Your task to perform on an android device: turn on location history Image 0: 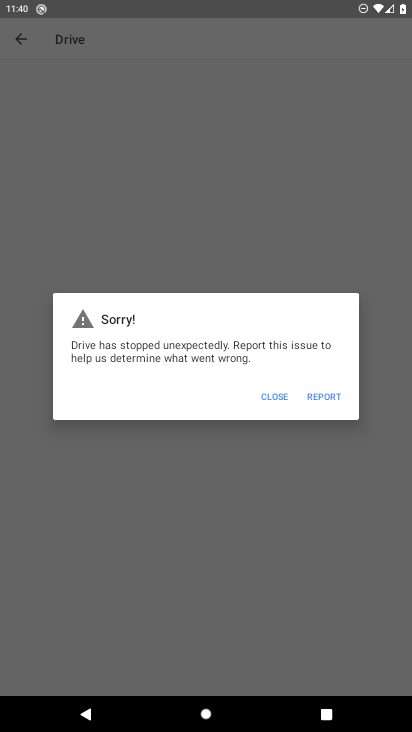
Step 0: drag from (211, 507) to (259, 289)
Your task to perform on an android device: turn on location history Image 1: 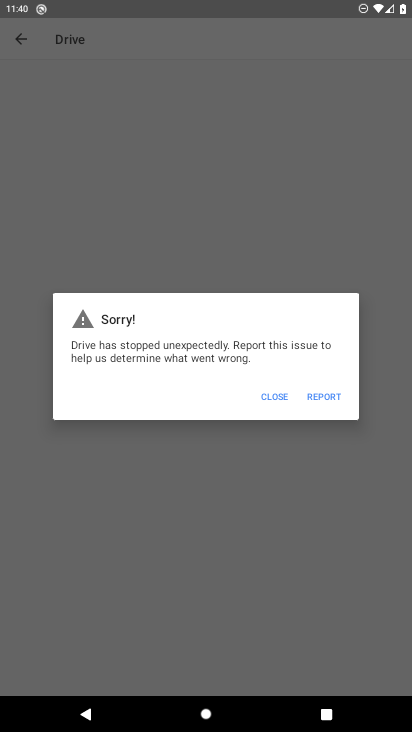
Step 1: drag from (187, 543) to (202, 245)
Your task to perform on an android device: turn on location history Image 2: 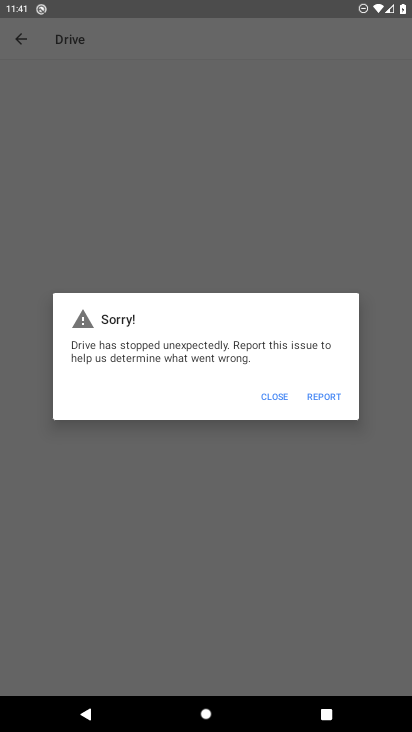
Step 2: drag from (235, 539) to (269, 253)
Your task to perform on an android device: turn on location history Image 3: 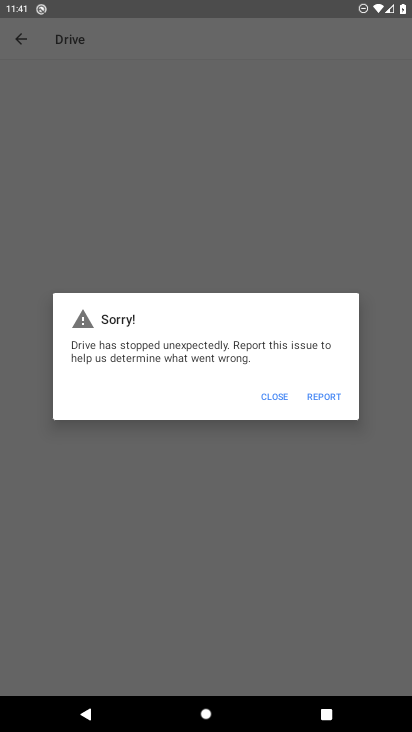
Step 3: drag from (170, 383) to (244, 131)
Your task to perform on an android device: turn on location history Image 4: 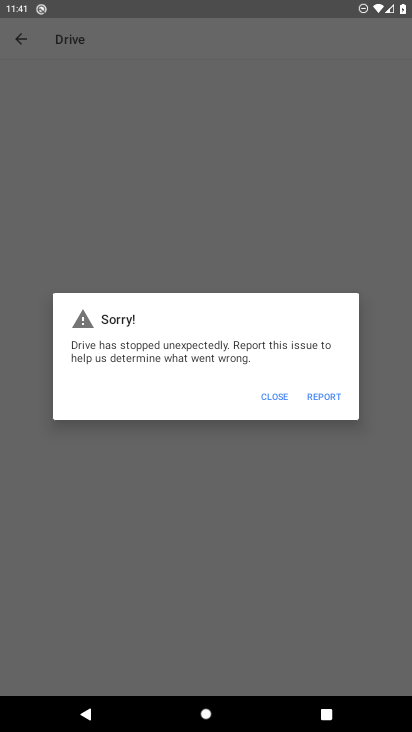
Step 4: press home button
Your task to perform on an android device: turn on location history Image 5: 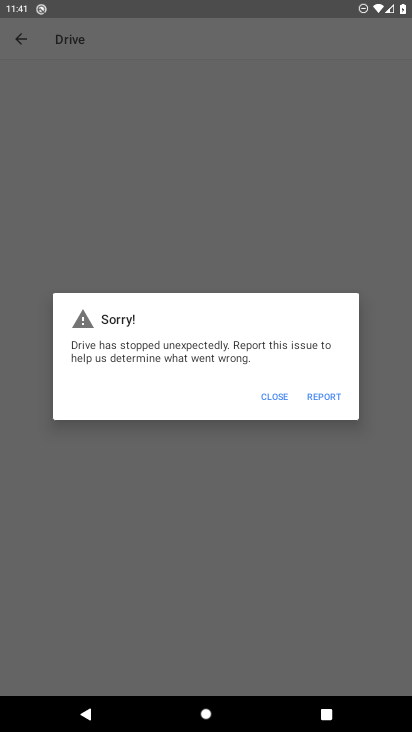
Step 5: press home button
Your task to perform on an android device: turn on location history Image 6: 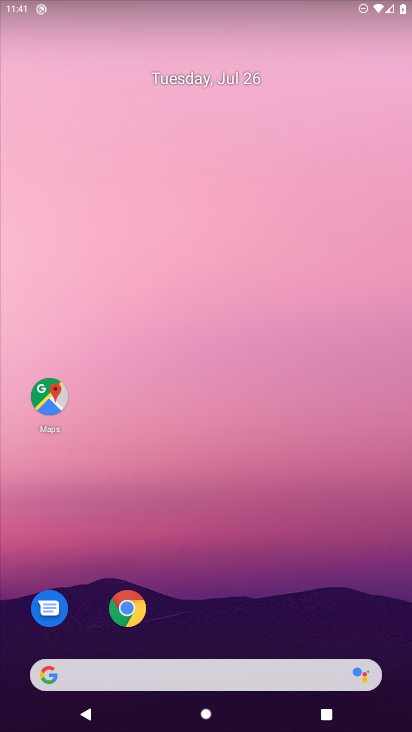
Step 6: drag from (180, 595) to (280, 15)
Your task to perform on an android device: turn on location history Image 7: 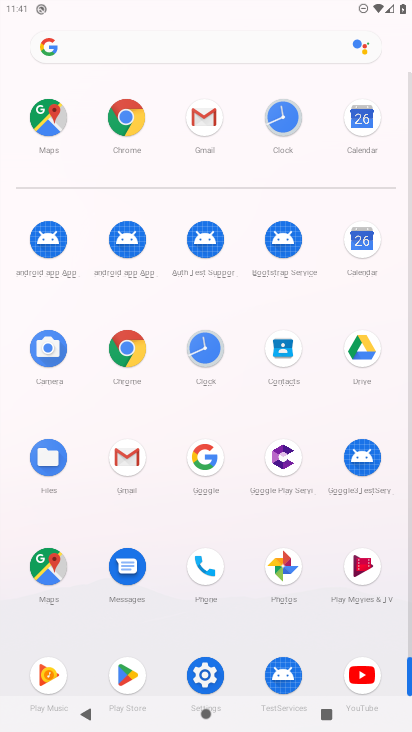
Step 7: click (202, 679)
Your task to perform on an android device: turn on location history Image 8: 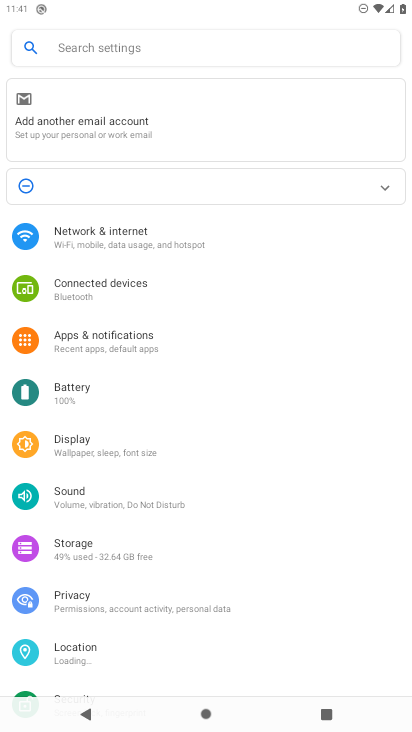
Step 8: drag from (148, 651) to (231, 259)
Your task to perform on an android device: turn on location history Image 9: 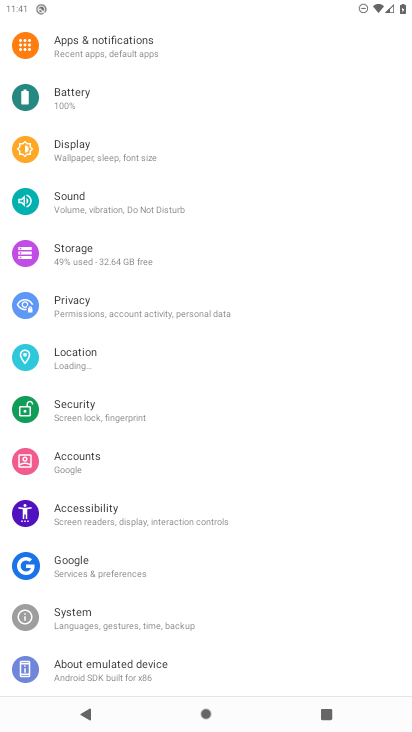
Step 9: click (114, 351)
Your task to perform on an android device: turn on location history Image 10: 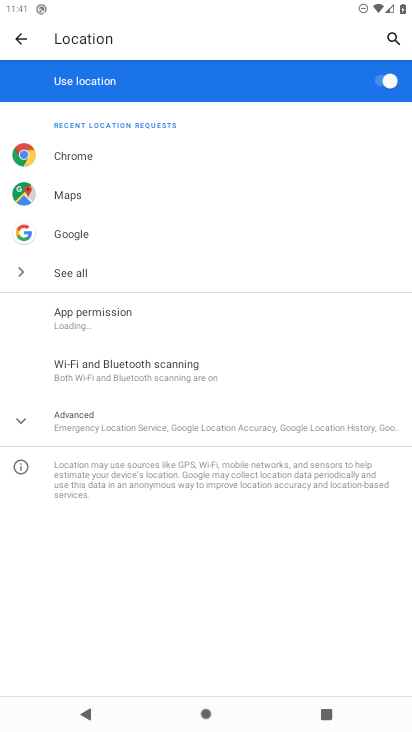
Step 10: click (126, 428)
Your task to perform on an android device: turn on location history Image 11: 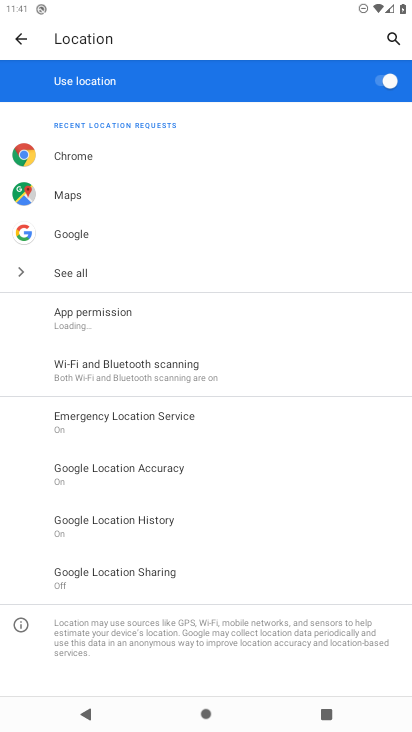
Step 11: drag from (203, 546) to (245, 357)
Your task to perform on an android device: turn on location history Image 12: 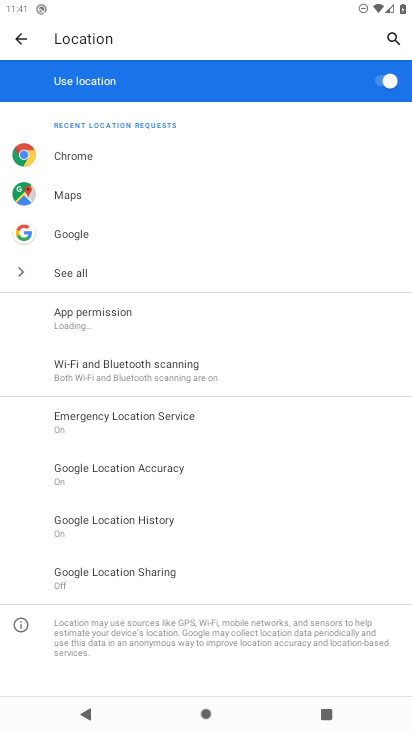
Step 12: click (113, 521)
Your task to perform on an android device: turn on location history Image 13: 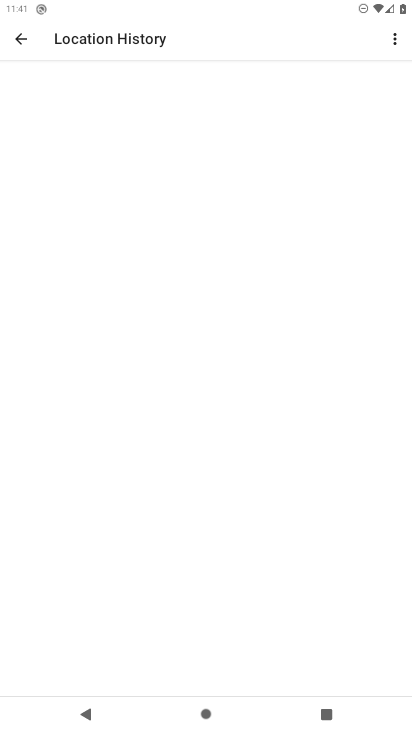
Step 13: task complete